Your task to perform on an android device: Open the calendar app, open the side menu, and click the "Day" option Image 0: 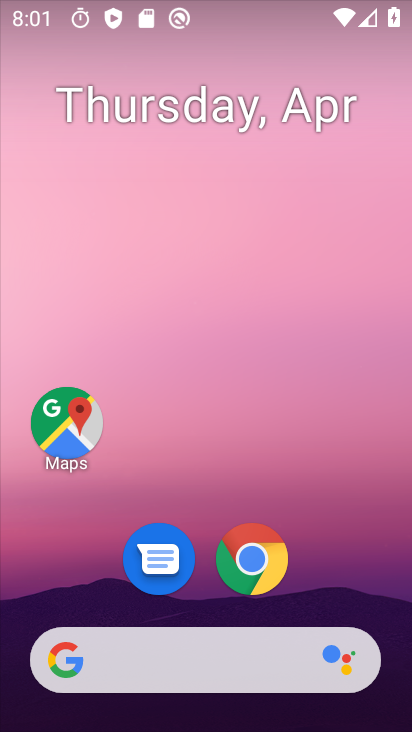
Step 0: drag from (285, 716) to (173, 9)
Your task to perform on an android device: Open the calendar app, open the side menu, and click the "Day" option Image 1: 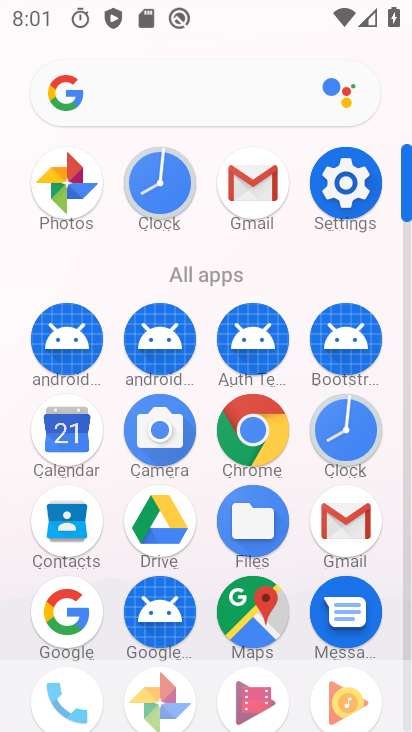
Step 1: click (60, 441)
Your task to perform on an android device: Open the calendar app, open the side menu, and click the "Day" option Image 2: 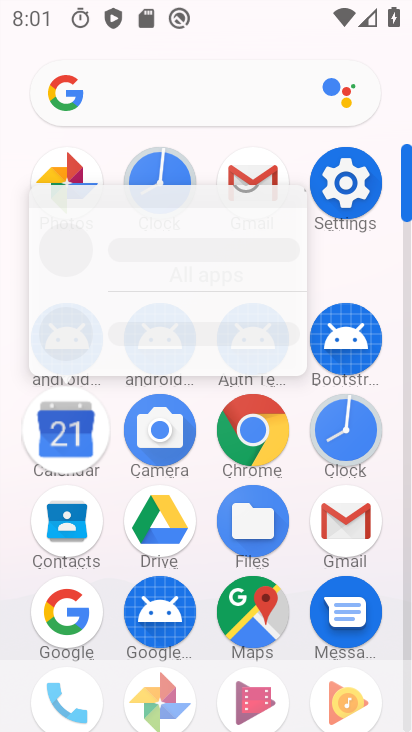
Step 2: click (60, 441)
Your task to perform on an android device: Open the calendar app, open the side menu, and click the "Day" option Image 3: 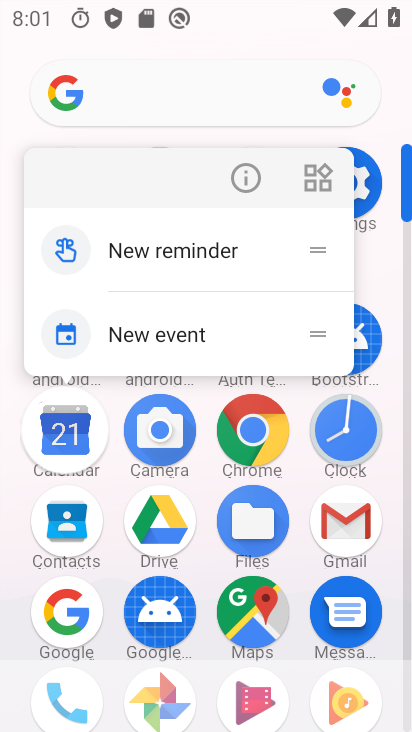
Step 3: click (60, 441)
Your task to perform on an android device: Open the calendar app, open the side menu, and click the "Day" option Image 4: 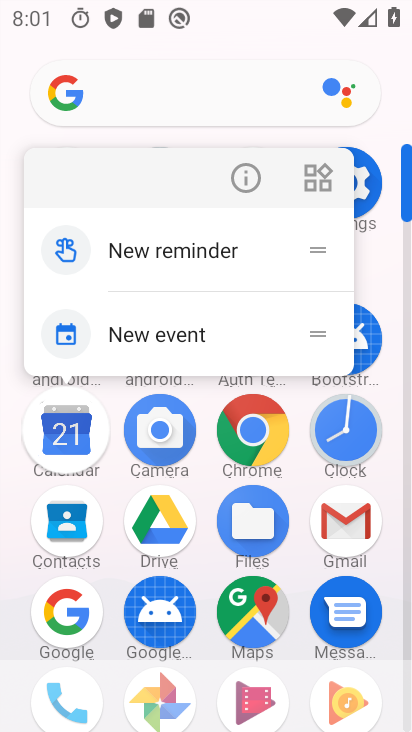
Step 4: click (60, 440)
Your task to perform on an android device: Open the calendar app, open the side menu, and click the "Day" option Image 5: 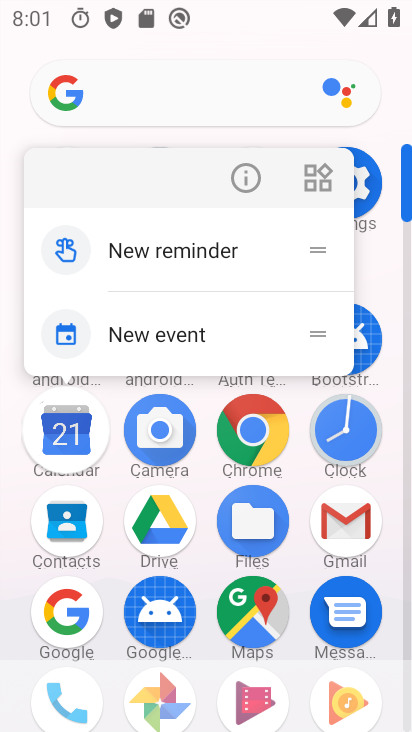
Step 5: click (62, 438)
Your task to perform on an android device: Open the calendar app, open the side menu, and click the "Day" option Image 6: 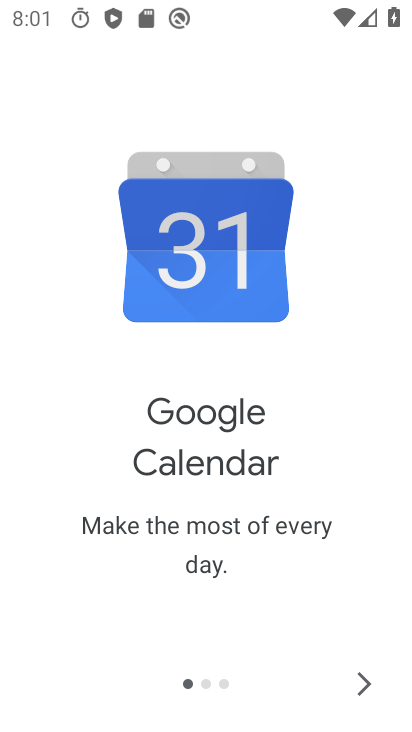
Step 6: click (360, 672)
Your task to perform on an android device: Open the calendar app, open the side menu, and click the "Day" option Image 7: 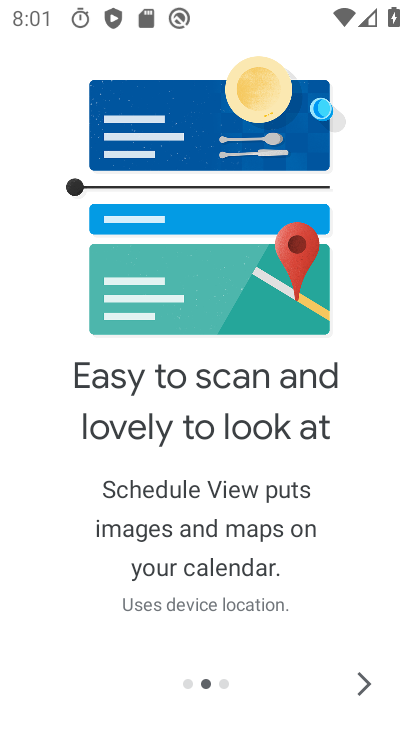
Step 7: click (359, 671)
Your task to perform on an android device: Open the calendar app, open the side menu, and click the "Day" option Image 8: 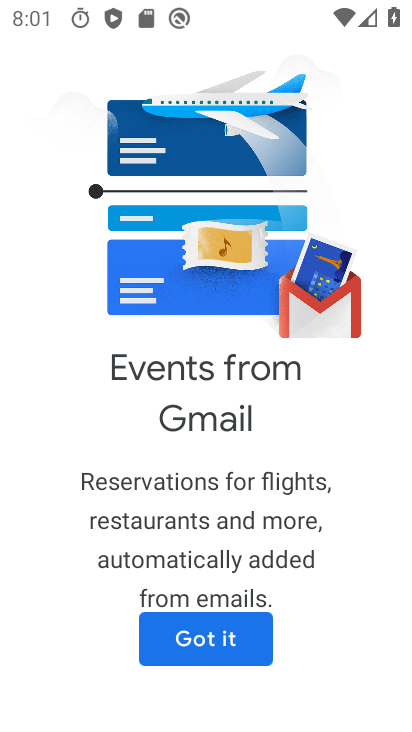
Step 8: click (359, 672)
Your task to perform on an android device: Open the calendar app, open the side menu, and click the "Day" option Image 9: 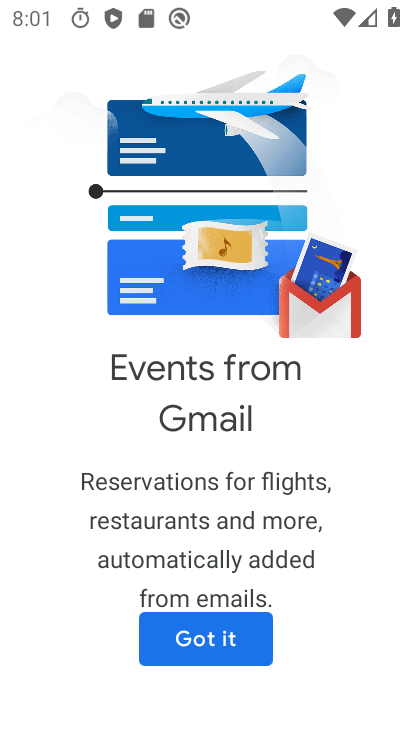
Step 9: click (234, 642)
Your task to perform on an android device: Open the calendar app, open the side menu, and click the "Day" option Image 10: 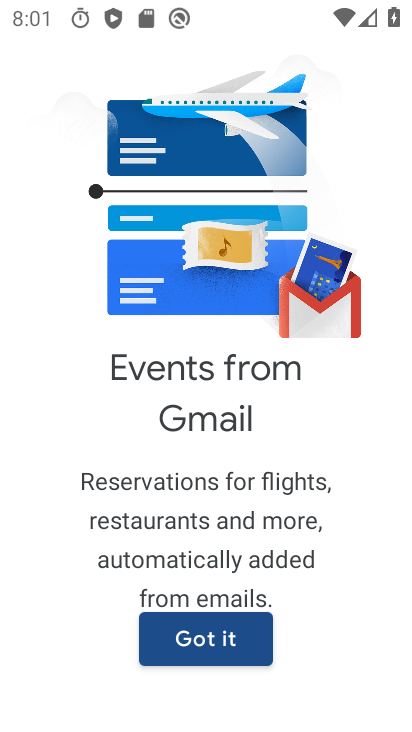
Step 10: click (234, 642)
Your task to perform on an android device: Open the calendar app, open the side menu, and click the "Day" option Image 11: 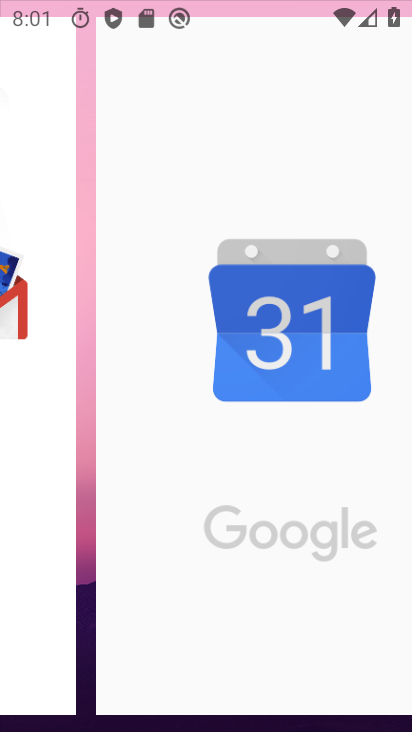
Step 11: click (233, 643)
Your task to perform on an android device: Open the calendar app, open the side menu, and click the "Day" option Image 12: 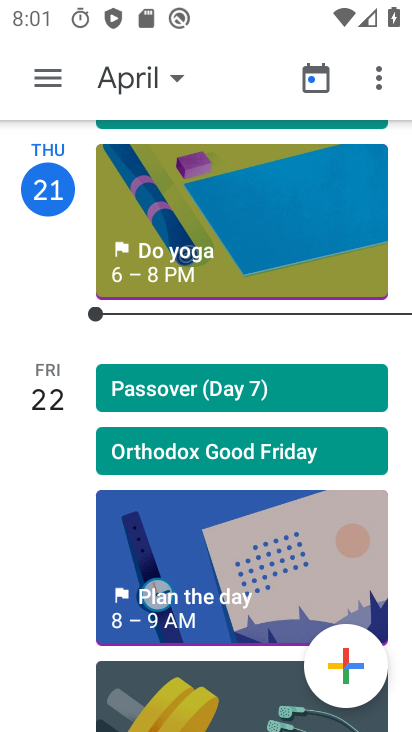
Step 12: click (37, 66)
Your task to perform on an android device: Open the calendar app, open the side menu, and click the "Day" option Image 13: 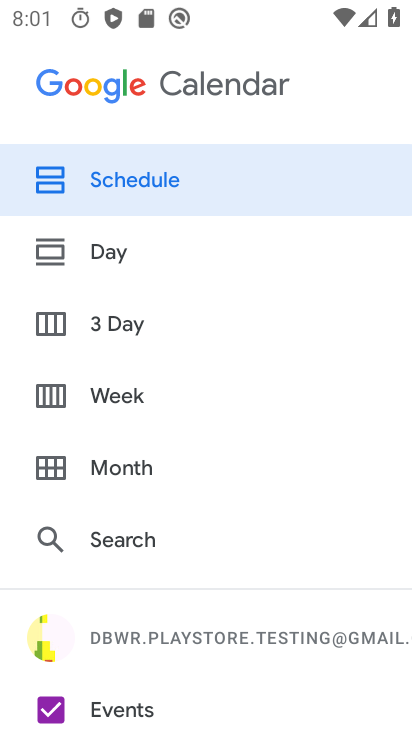
Step 13: click (93, 245)
Your task to perform on an android device: Open the calendar app, open the side menu, and click the "Day" option Image 14: 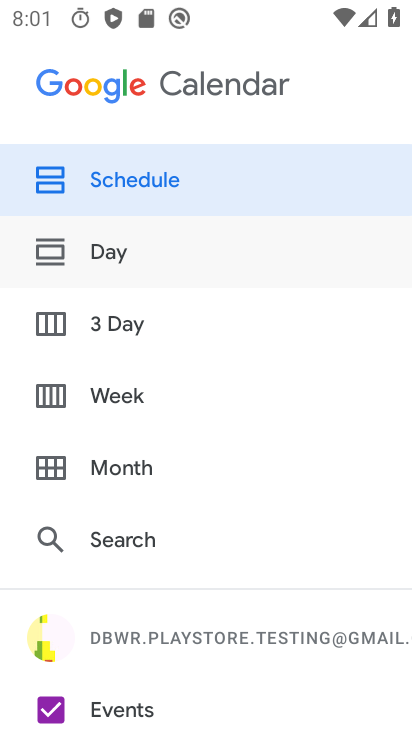
Step 14: click (96, 247)
Your task to perform on an android device: Open the calendar app, open the side menu, and click the "Day" option Image 15: 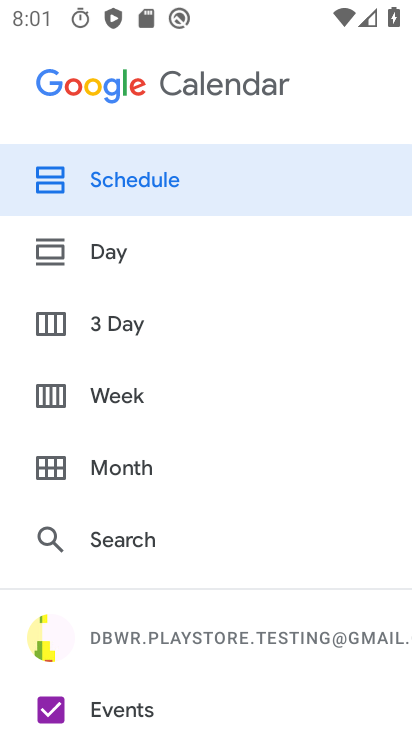
Step 15: click (113, 249)
Your task to perform on an android device: Open the calendar app, open the side menu, and click the "Day" option Image 16: 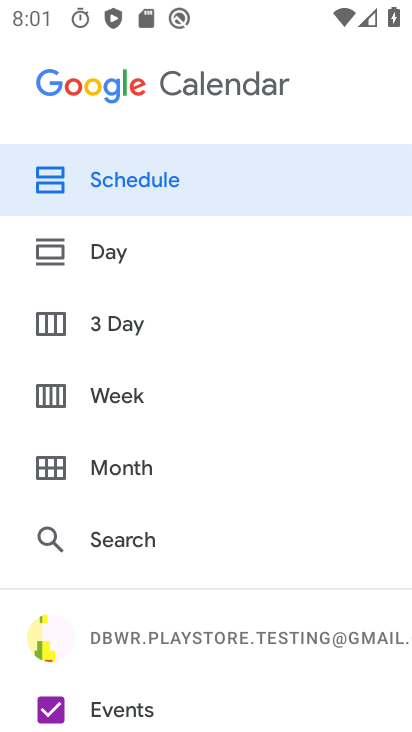
Step 16: click (110, 256)
Your task to perform on an android device: Open the calendar app, open the side menu, and click the "Day" option Image 17: 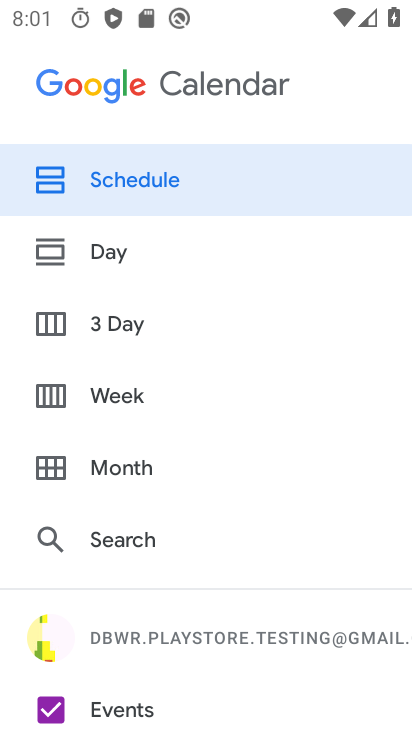
Step 17: click (110, 246)
Your task to perform on an android device: Open the calendar app, open the side menu, and click the "Day" option Image 18: 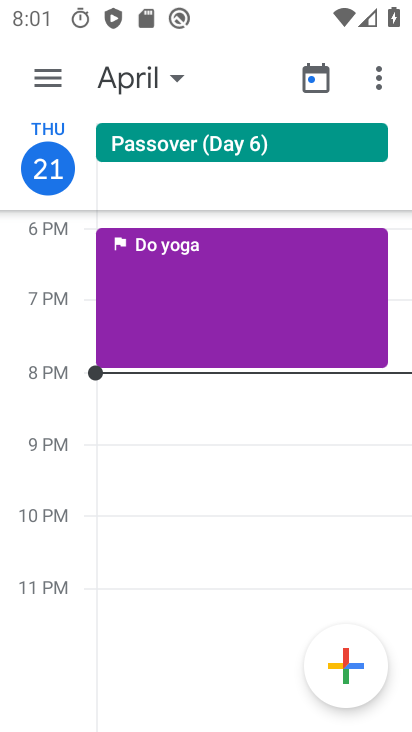
Step 18: click (40, 77)
Your task to perform on an android device: Open the calendar app, open the side menu, and click the "Day" option Image 19: 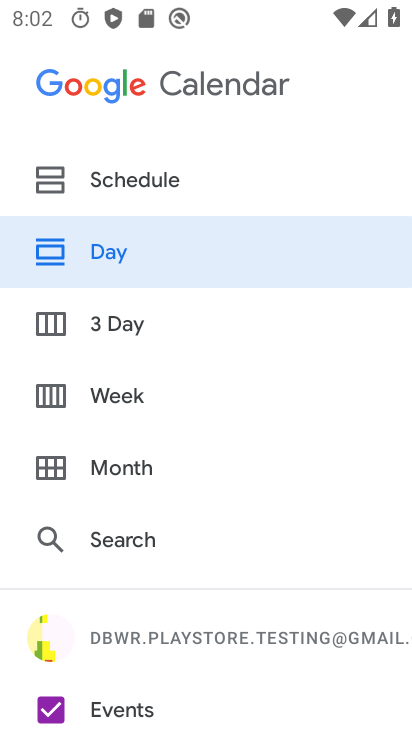
Step 19: task complete